Your task to perform on an android device: Go to calendar. Show me events next week Image 0: 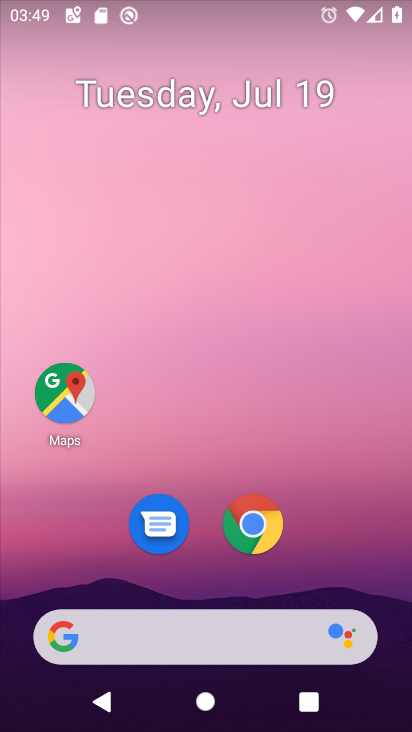
Step 0: drag from (319, 560) to (312, 37)
Your task to perform on an android device: Go to calendar. Show me events next week Image 1: 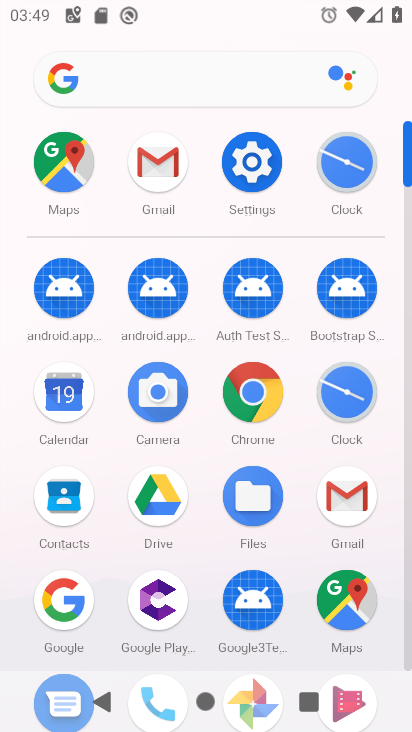
Step 1: click (58, 390)
Your task to perform on an android device: Go to calendar. Show me events next week Image 2: 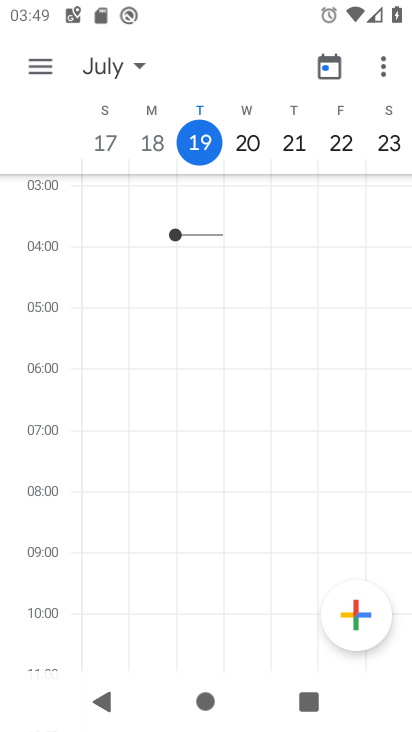
Step 2: task complete